Your task to perform on an android device: Show me recent news Image 0: 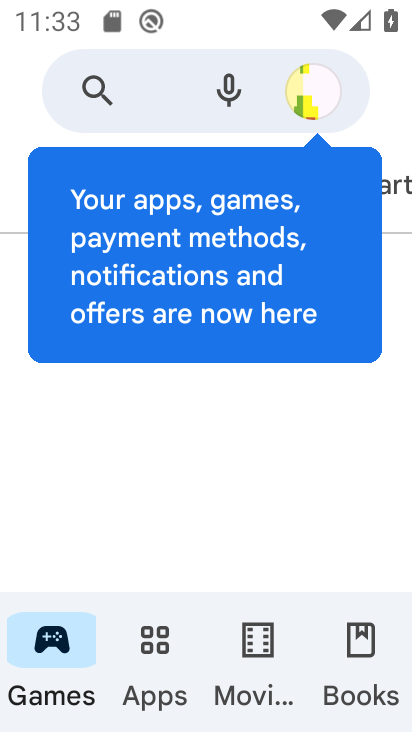
Step 0: press home button
Your task to perform on an android device: Show me recent news Image 1: 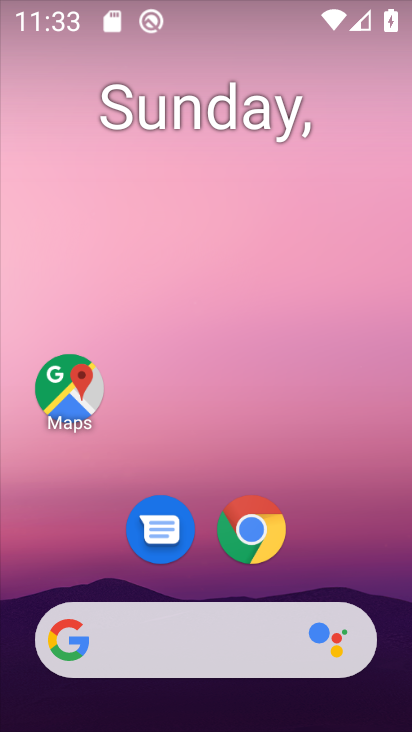
Step 1: task complete